Your task to perform on an android device: toggle javascript in the chrome app Image 0: 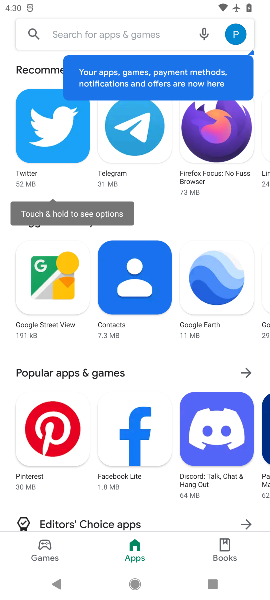
Step 0: press home button
Your task to perform on an android device: toggle javascript in the chrome app Image 1: 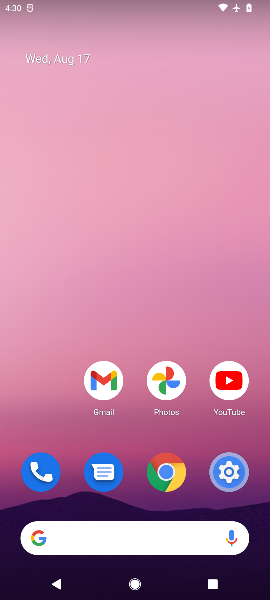
Step 1: click (174, 483)
Your task to perform on an android device: toggle javascript in the chrome app Image 2: 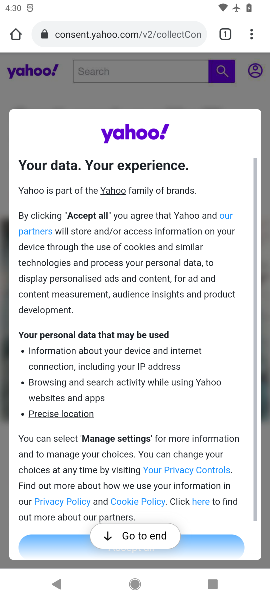
Step 2: click (252, 30)
Your task to perform on an android device: toggle javascript in the chrome app Image 3: 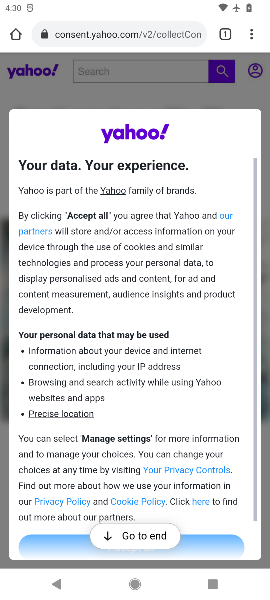
Step 3: click (256, 34)
Your task to perform on an android device: toggle javascript in the chrome app Image 4: 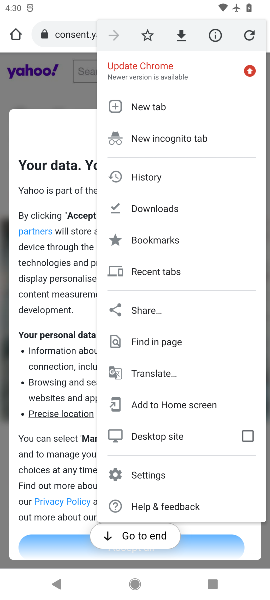
Step 4: click (152, 476)
Your task to perform on an android device: toggle javascript in the chrome app Image 5: 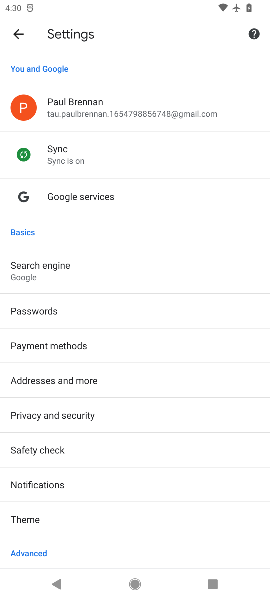
Step 5: drag from (137, 503) to (178, 271)
Your task to perform on an android device: toggle javascript in the chrome app Image 6: 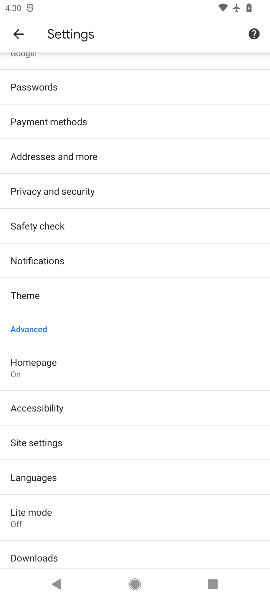
Step 6: click (44, 439)
Your task to perform on an android device: toggle javascript in the chrome app Image 7: 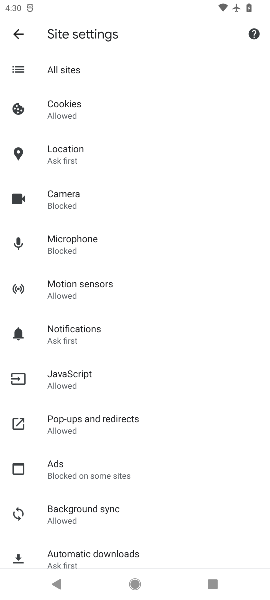
Step 7: click (69, 381)
Your task to perform on an android device: toggle javascript in the chrome app Image 8: 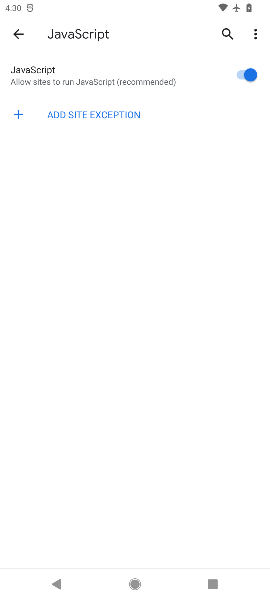
Step 8: click (228, 67)
Your task to perform on an android device: toggle javascript in the chrome app Image 9: 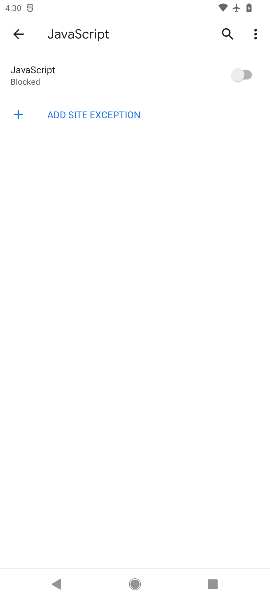
Step 9: task complete